Your task to perform on an android device: change your default location settings in chrome Image 0: 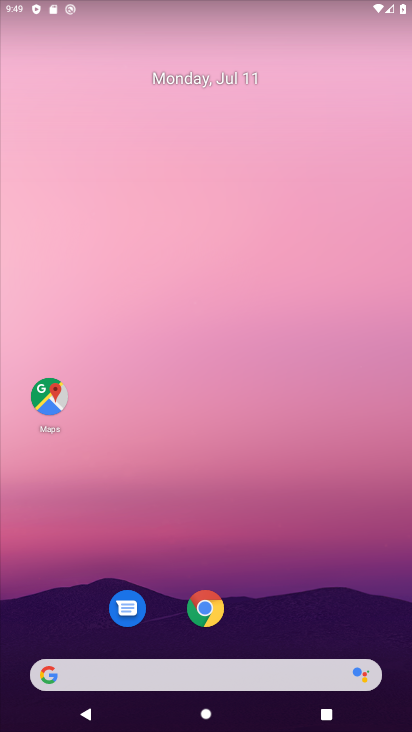
Step 0: click (197, 598)
Your task to perform on an android device: change your default location settings in chrome Image 1: 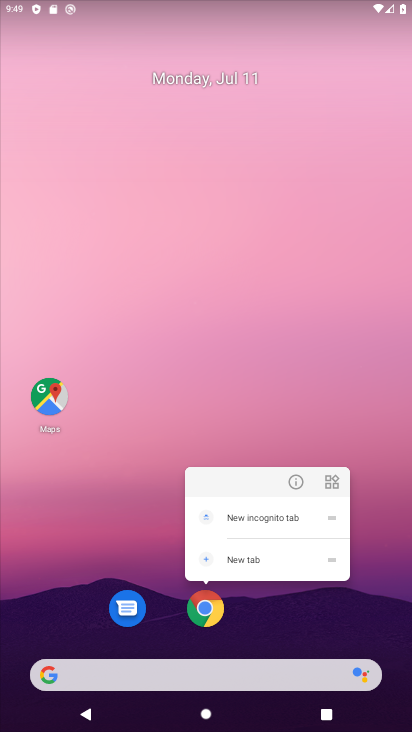
Step 1: click (215, 613)
Your task to perform on an android device: change your default location settings in chrome Image 2: 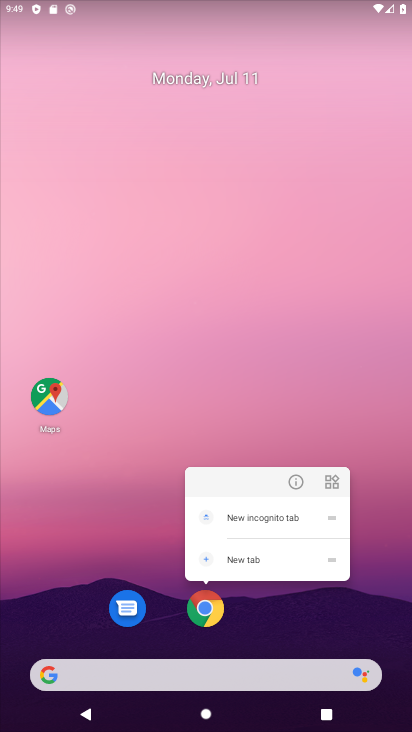
Step 2: click (197, 611)
Your task to perform on an android device: change your default location settings in chrome Image 3: 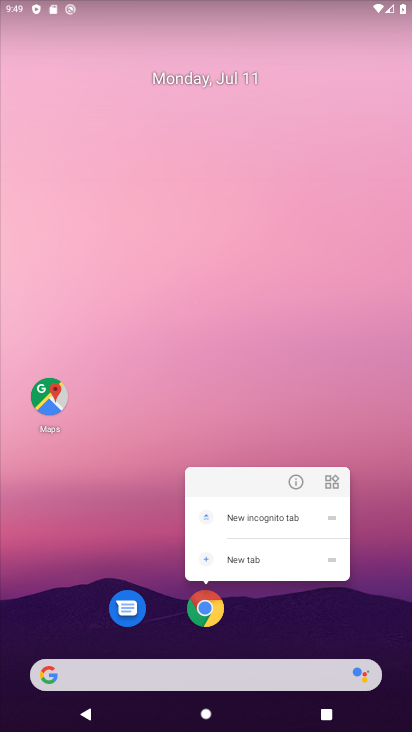
Step 3: click (205, 606)
Your task to perform on an android device: change your default location settings in chrome Image 4: 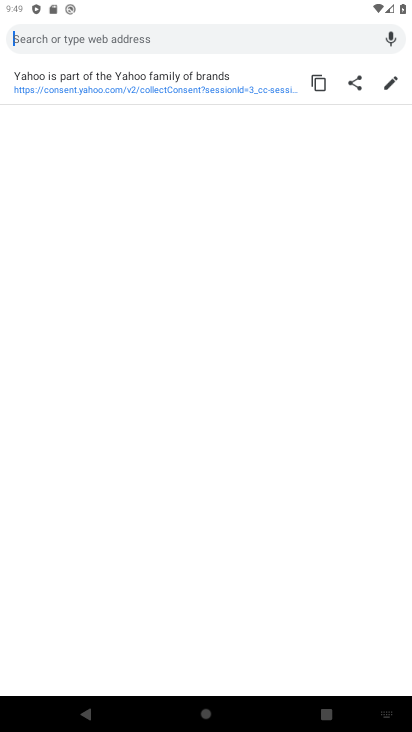
Step 4: task complete